Your task to perform on an android device: Clear the shopping cart on bestbuy.com. Add "razer huntsman" to the cart on bestbuy.com, then select checkout. Image 0: 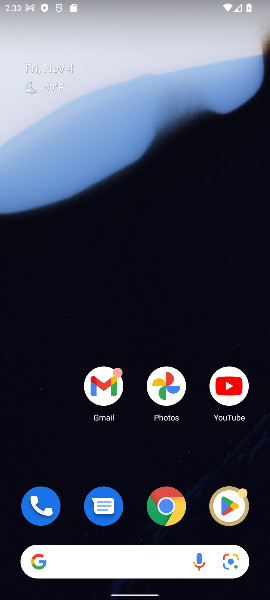
Step 0: drag from (125, 469) to (132, 38)
Your task to perform on an android device: Clear the shopping cart on bestbuy.com. Add "razer huntsman" to the cart on bestbuy.com, then select checkout. Image 1: 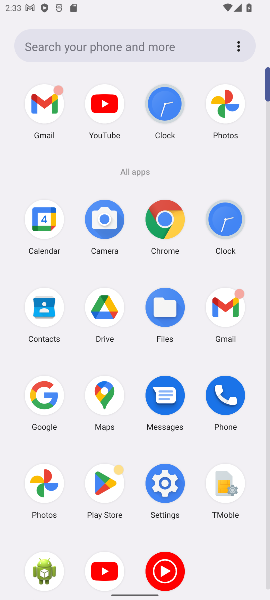
Step 1: click (161, 221)
Your task to perform on an android device: Clear the shopping cart on bestbuy.com. Add "razer huntsman" to the cart on bestbuy.com, then select checkout. Image 2: 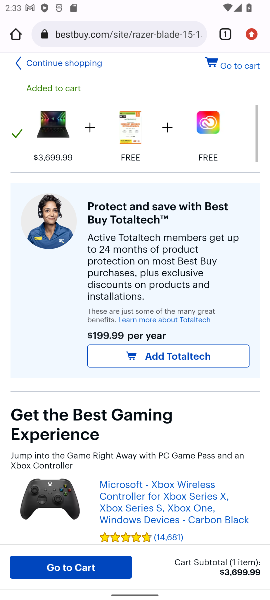
Step 2: click (125, 30)
Your task to perform on an android device: Clear the shopping cart on bestbuy.com. Add "razer huntsman" to the cart on bestbuy.com, then select checkout. Image 3: 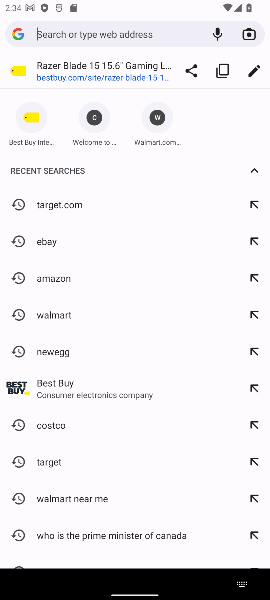
Step 3: type "bestbuy.com"
Your task to perform on an android device: Clear the shopping cart on bestbuy.com. Add "razer huntsman" to the cart on bestbuy.com, then select checkout. Image 4: 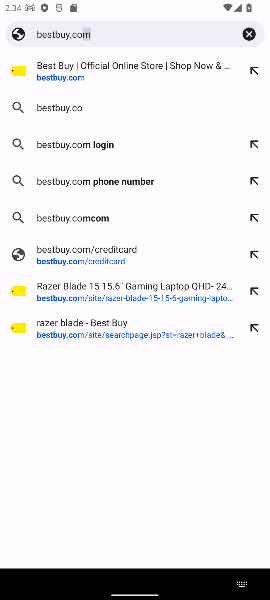
Step 4: press enter
Your task to perform on an android device: Clear the shopping cart on bestbuy.com. Add "razer huntsman" to the cart on bestbuy.com, then select checkout. Image 5: 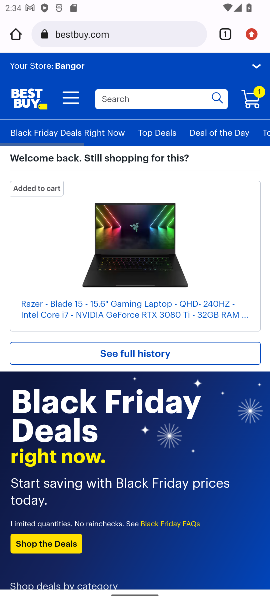
Step 5: click (254, 94)
Your task to perform on an android device: Clear the shopping cart on bestbuy.com. Add "razer huntsman" to the cart on bestbuy.com, then select checkout. Image 6: 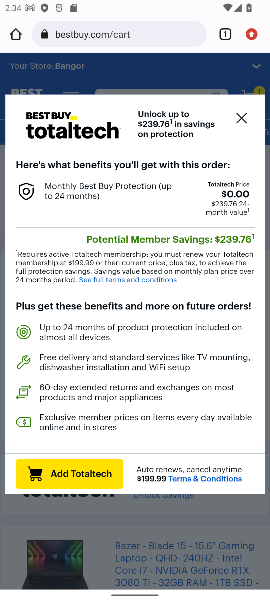
Step 6: click (241, 111)
Your task to perform on an android device: Clear the shopping cart on bestbuy.com. Add "razer huntsman" to the cart on bestbuy.com, then select checkout. Image 7: 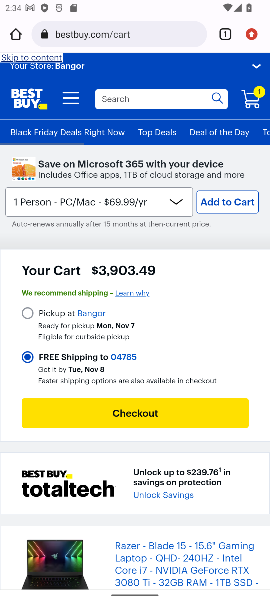
Step 7: drag from (176, 489) to (194, 177)
Your task to perform on an android device: Clear the shopping cart on bestbuy.com. Add "razer huntsman" to the cart on bestbuy.com, then select checkout. Image 8: 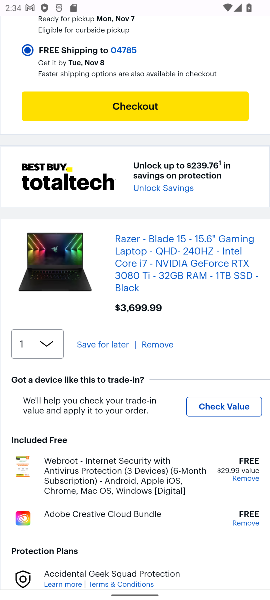
Step 8: click (166, 346)
Your task to perform on an android device: Clear the shopping cart on bestbuy.com. Add "razer huntsman" to the cart on bestbuy.com, then select checkout. Image 9: 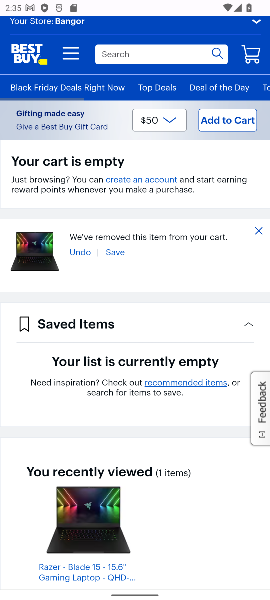
Step 9: click (179, 55)
Your task to perform on an android device: Clear the shopping cart on bestbuy.com. Add "razer huntsman" to the cart on bestbuy.com, then select checkout. Image 10: 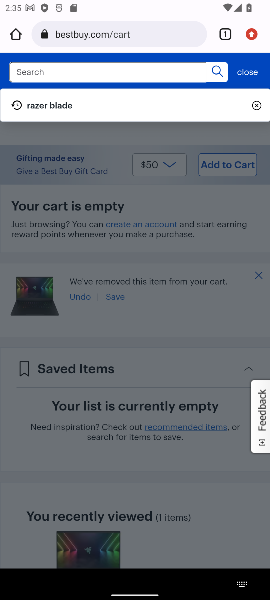
Step 10: type "razer huntsman"
Your task to perform on an android device: Clear the shopping cart on bestbuy.com. Add "razer huntsman" to the cart on bestbuy.com, then select checkout. Image 11: 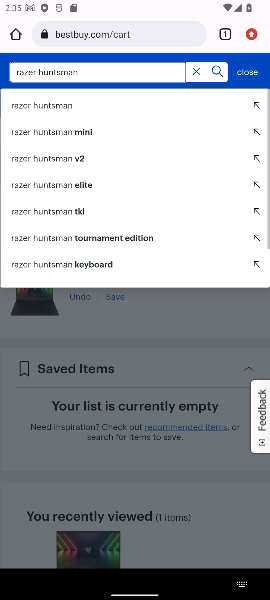
Step 11: press enter
Your task to perform on an android device: Clear the shopping cart on bestbuy.com. Add "razer huntsman" to the cart on bestbuy.com, then select checkout. Image 12: 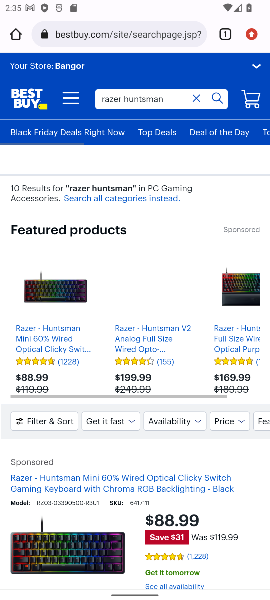
Step 12: drag from (183, 416) to (195, 214)
Your task to perform on an android device: Clear the shopping cart on bestbuy.com. Add "razer huntsman" to the cart on bestbuy.com, then select checkout. Image 13: 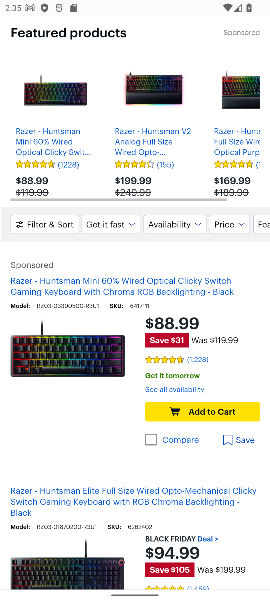
Step 13: drag from (191, 520) to (188, 332)
Your task to perform on an android device: Clear the shopping cart on bestbuy.com. Add "razer huntsman" to the cart on bestbuy.com, then select checkout. Image 14: 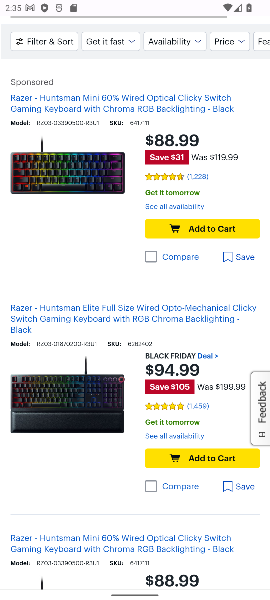
Step 14: click (199, 460)
Your task to perform on an android device: Clear the shopping cart on bestbuy.com. Add "razer huntsman" to the cart on bestbuy.com, then select checkout. Image 15: 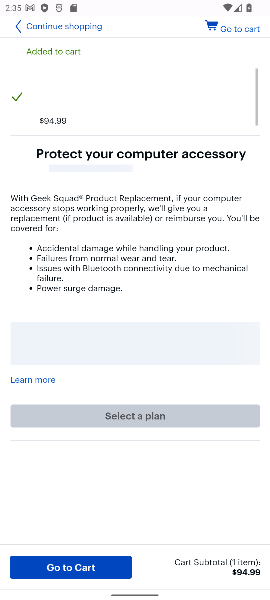
Step 15: click (108, 564)
Your task to perform on an android device: Clear the shopping cart on bestbuy.com. Add "razer huntsman" to the cart on bestbuy.com, then select checkout. Image 16: 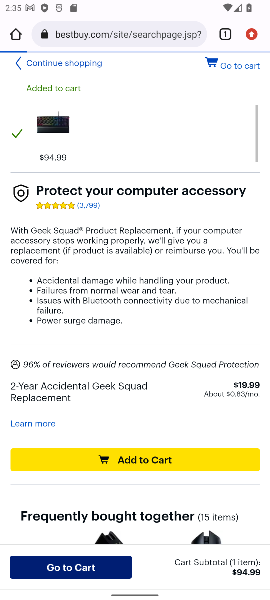
Step 16: click (112, 563)
Your task to perform on an android device: Clear the shopping cart on bestbuy.com. Add "razer huntsman" to the cart on bestbuy.com, then select checkout. Image 17: 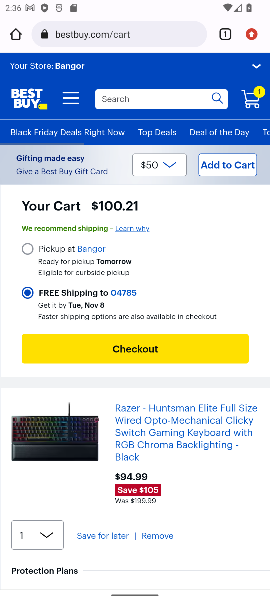
Step 17: click (215, 351)
Your task to perform on an android device: Clear the shopping cart on bestbuy.com. Add "razer huntsman" to the cart on bestbuy.com, then select checkout. Image 18: 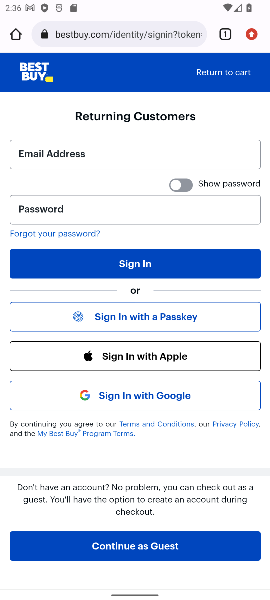
Step 18: task complete